Your task to perform on an android device: toggle sleep mode Image 0: 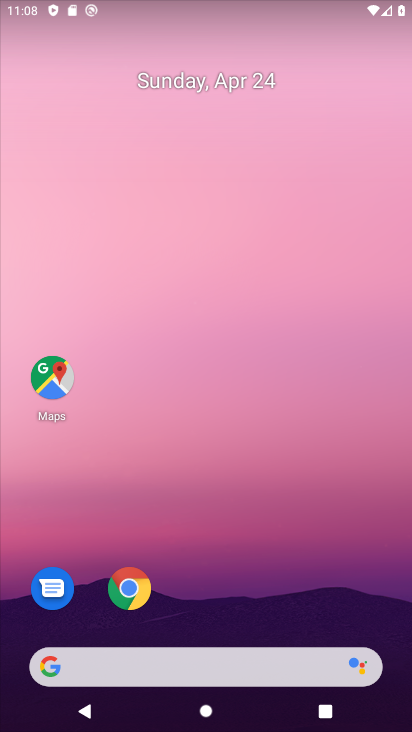
Step 0: drag from (241, 617) to (207, 16)
Your task to perform on an android device: toggle sleep mode Image 1: 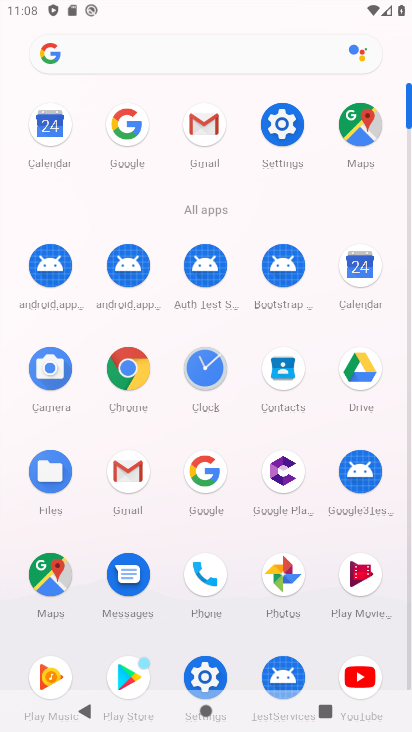
Step 1: click (264, 155)
Your task to perform on an android device: toggle sleep mode Image 2: 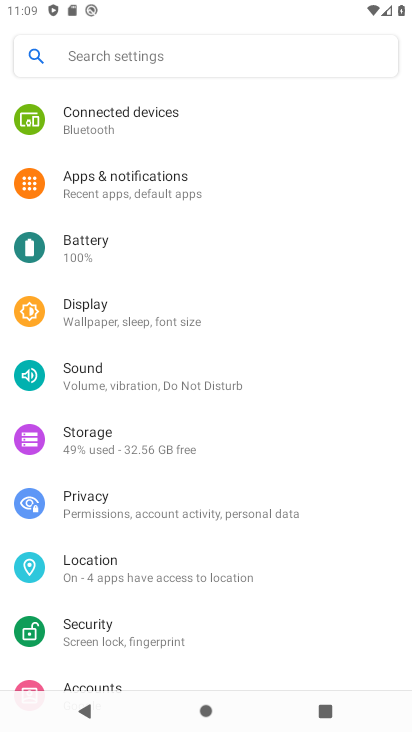
Step 2: click (136, 322)
Your task to perform on an android device: toggle sleep mode Image 3: 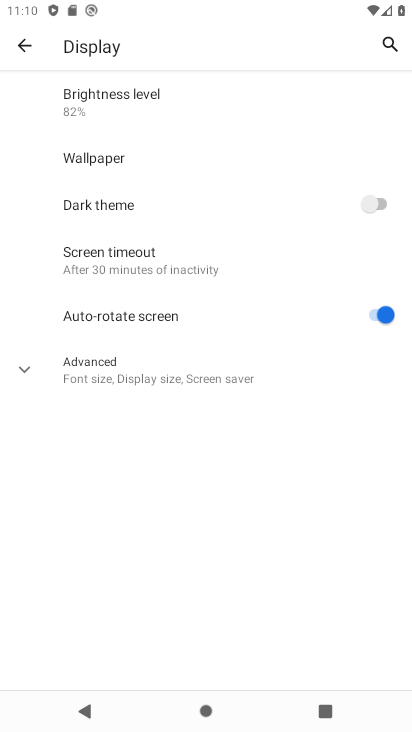
Step 3: click (203, 370)
Your task to perform on an android device: toggle sleep mode Image 4: 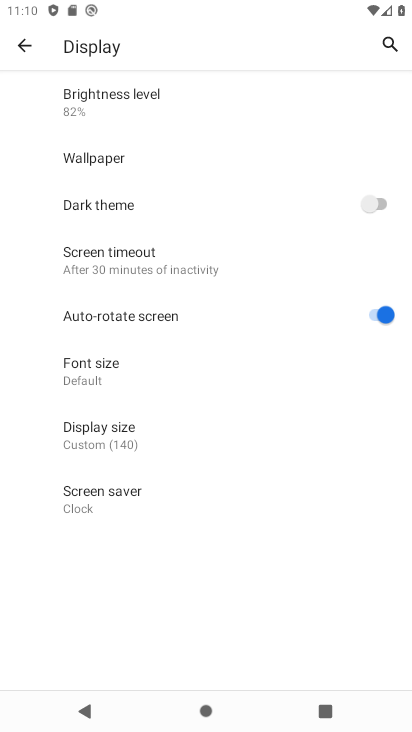
Step 4: task complete